Your task to perform on an android device: View the shopping cart on newegg.com. Search for "macbook air" on newegg.com, select the first entry, add it to the cart, then select checkout. Image 0: 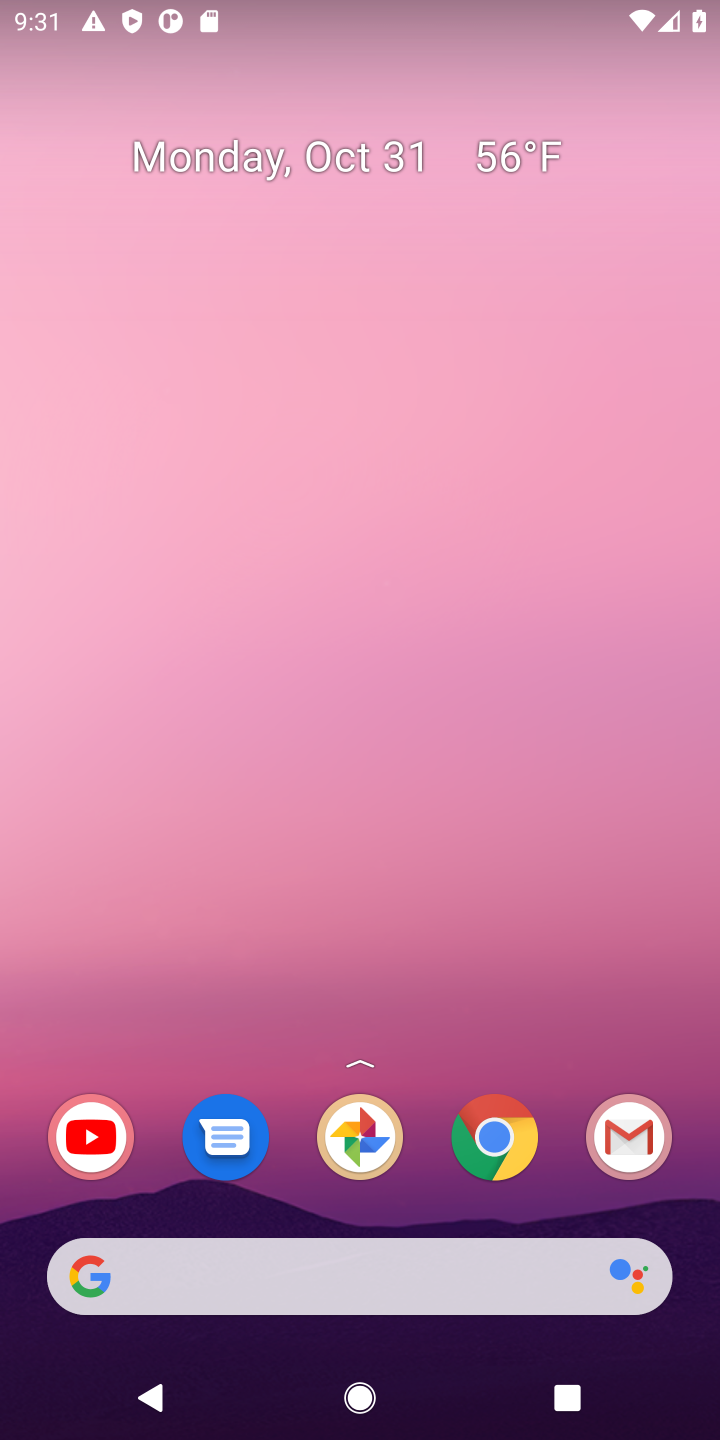
Step 0: click (495, 1143)
Your task to perform on an android device: View the shopping cart on newegg.com. Search for "macbook air" on newegg.com, select the first entry, add it to the cart, then select checkout. Image 1: 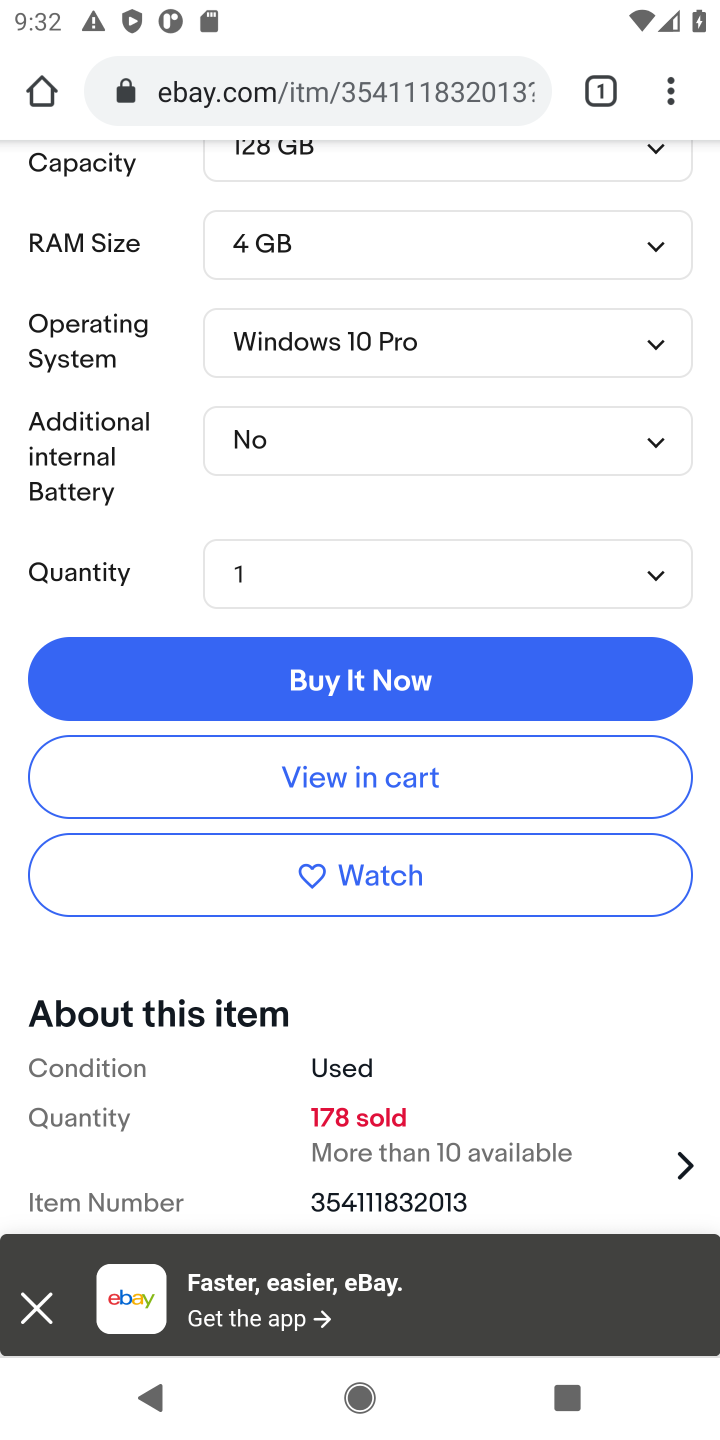
Step 1: click (287, 102)
Your task to perform on an android device: View the shopping cart on newegg.com. Search for "macbook air" on newegg.com, select the first entry, add it to the cart, then select checkout. Image 2: 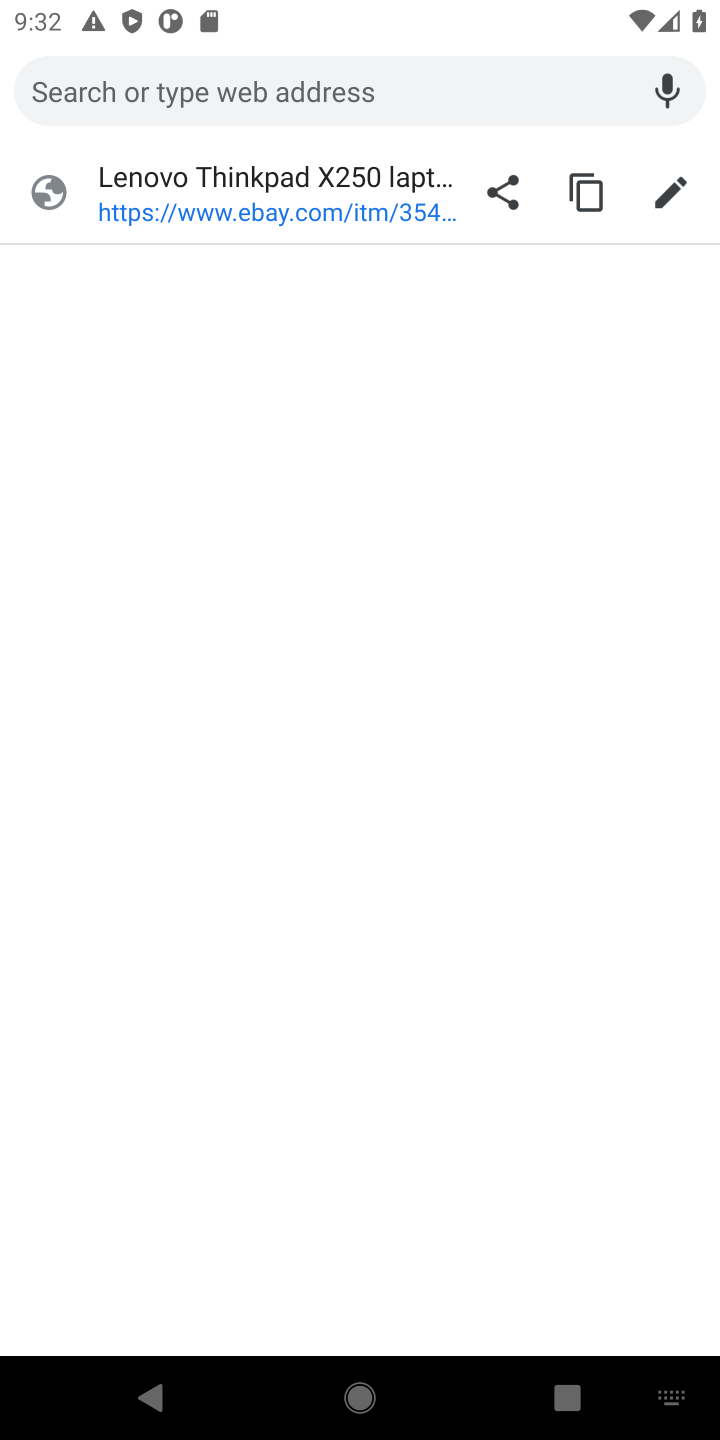
Step 2: type "newegg.com"
Your task to perform on an android device: View the shopping cart on newegg.com. Search for "macbook air" on newegg.com, select the first entry, add it to the cart, then select checkout. Image 3: 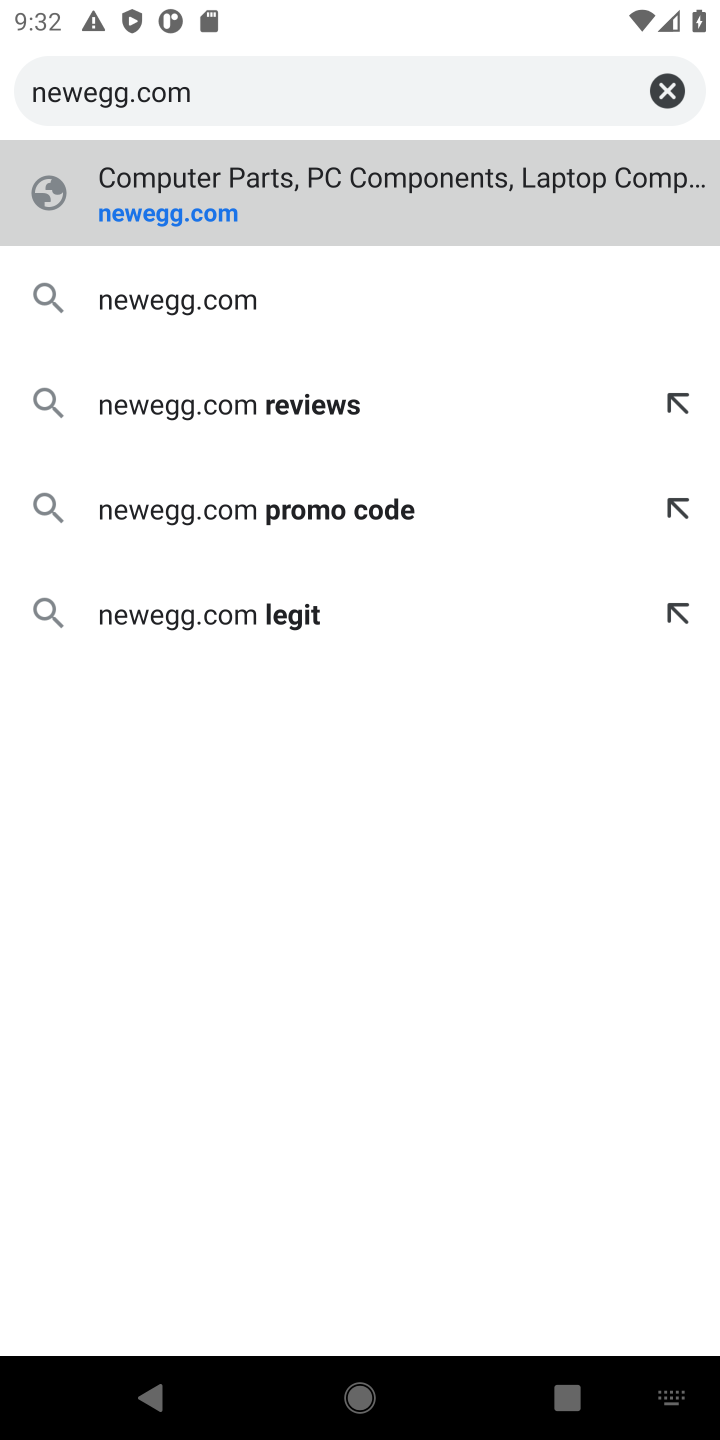
Step 3: click (176, 299)
Your task to perform on an android device: View the shopping cart on newegg.com. Search for "macbook air" on newegg.com, select the first entry, add it to the cart, then select checkout. Image 4: 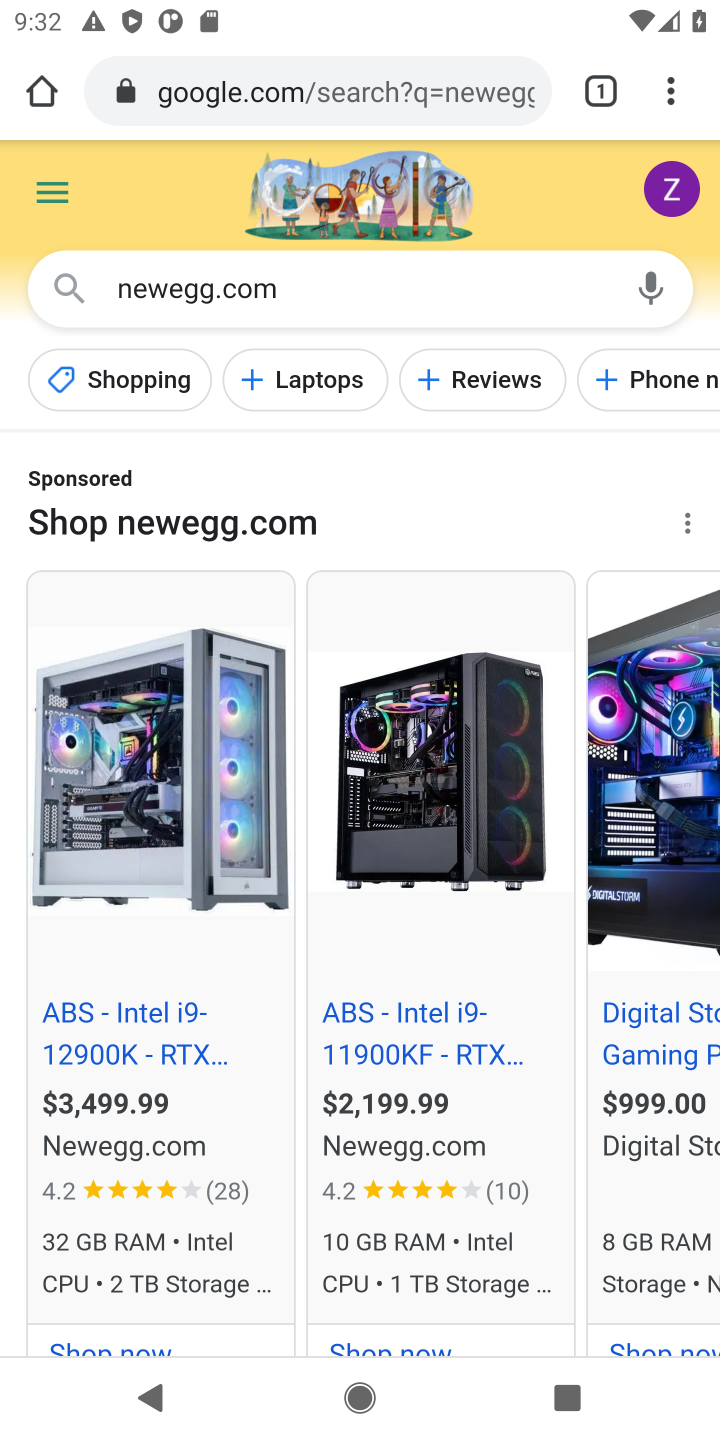
Step 4: drag from (328, 1034) to (465, 333)
Your task to perform on an android device: View the shopping cart on newegg.com. Search for "macbook air" on newegg.com, select the first entry, add it to the cart, then select checkout. Image 5: 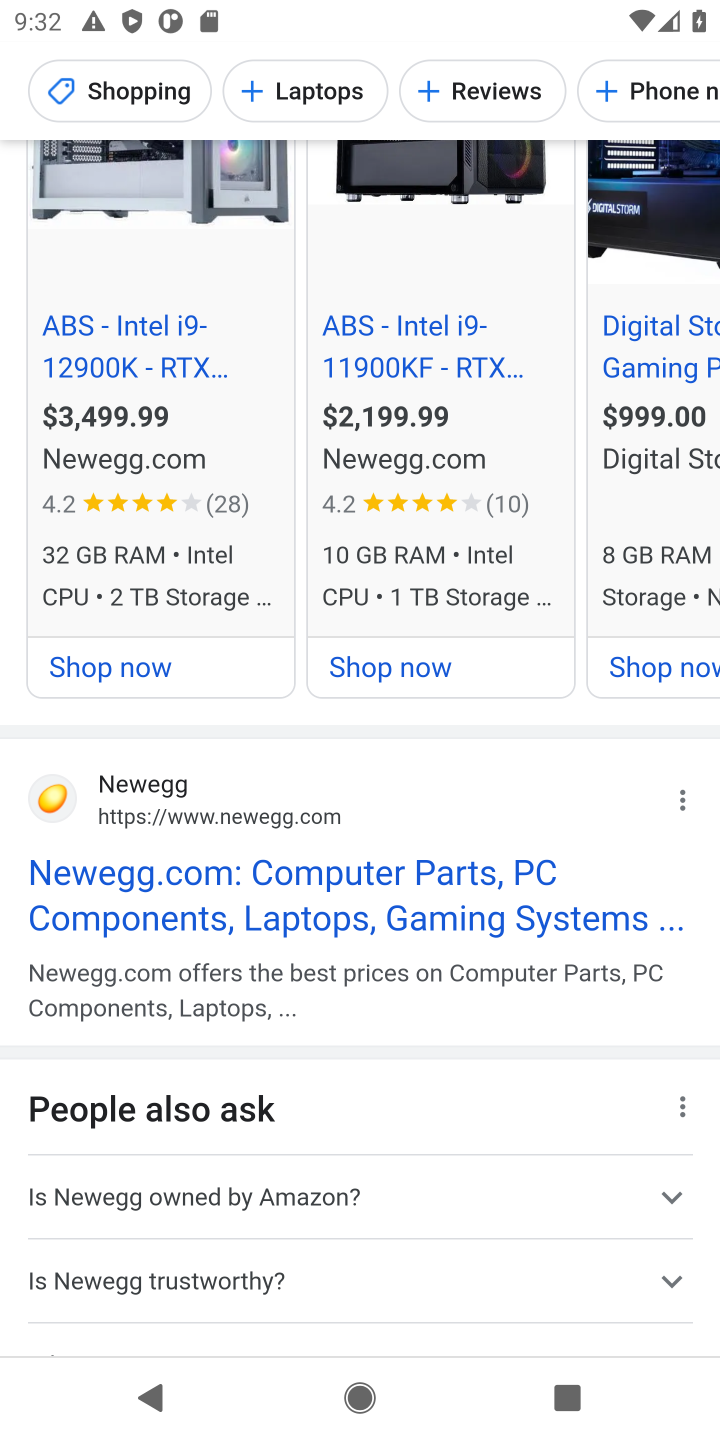
Step 5: click (206, 821)
Your task to perform on an android device: View the shopping cart on newegg.com. Search for "macbook air" on newegg.com, select the first entry, add it to the cart, then select checkout. Image 6: 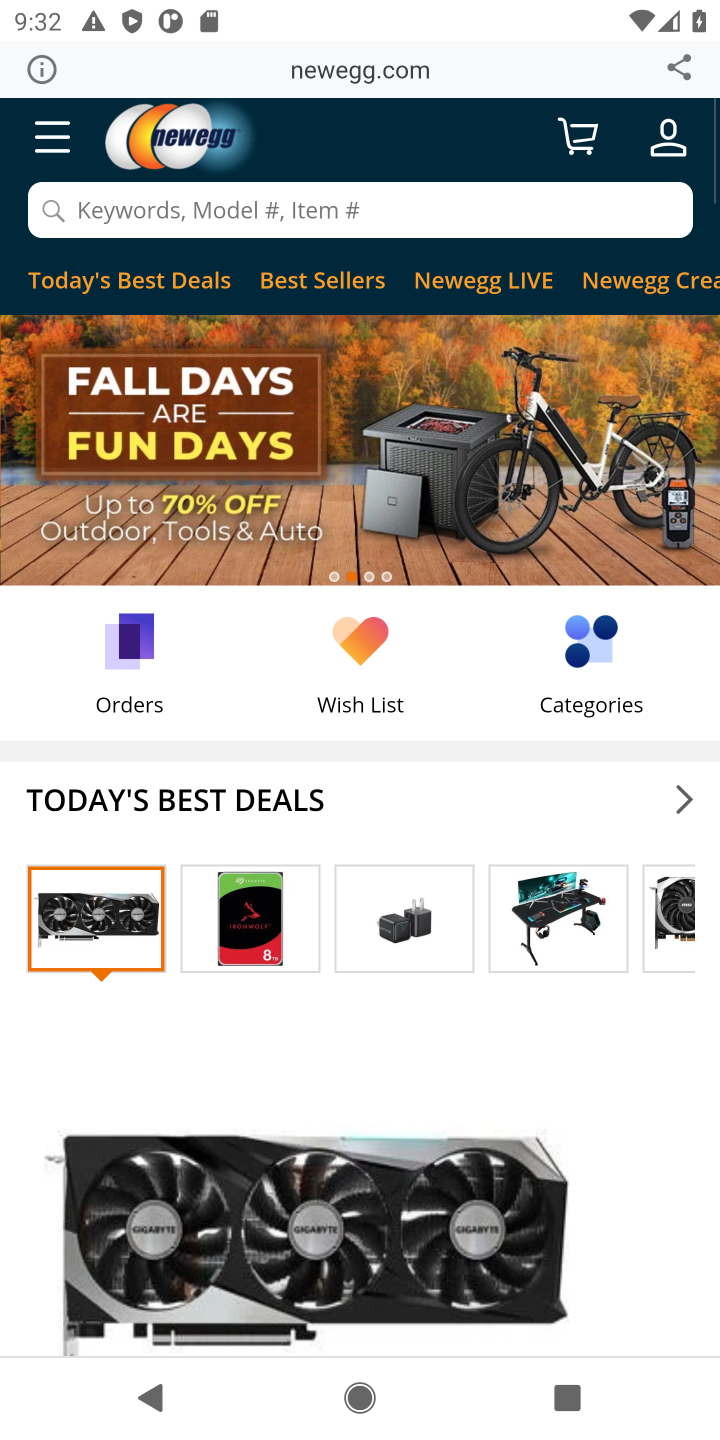
Step 6: click (583, 137)
Your task to perform on an android device: View the shopping cart on newegg.com. Search for "macbook air" on newegg.com, select the first entry, add it to the cart, then select checkout. Image 7: 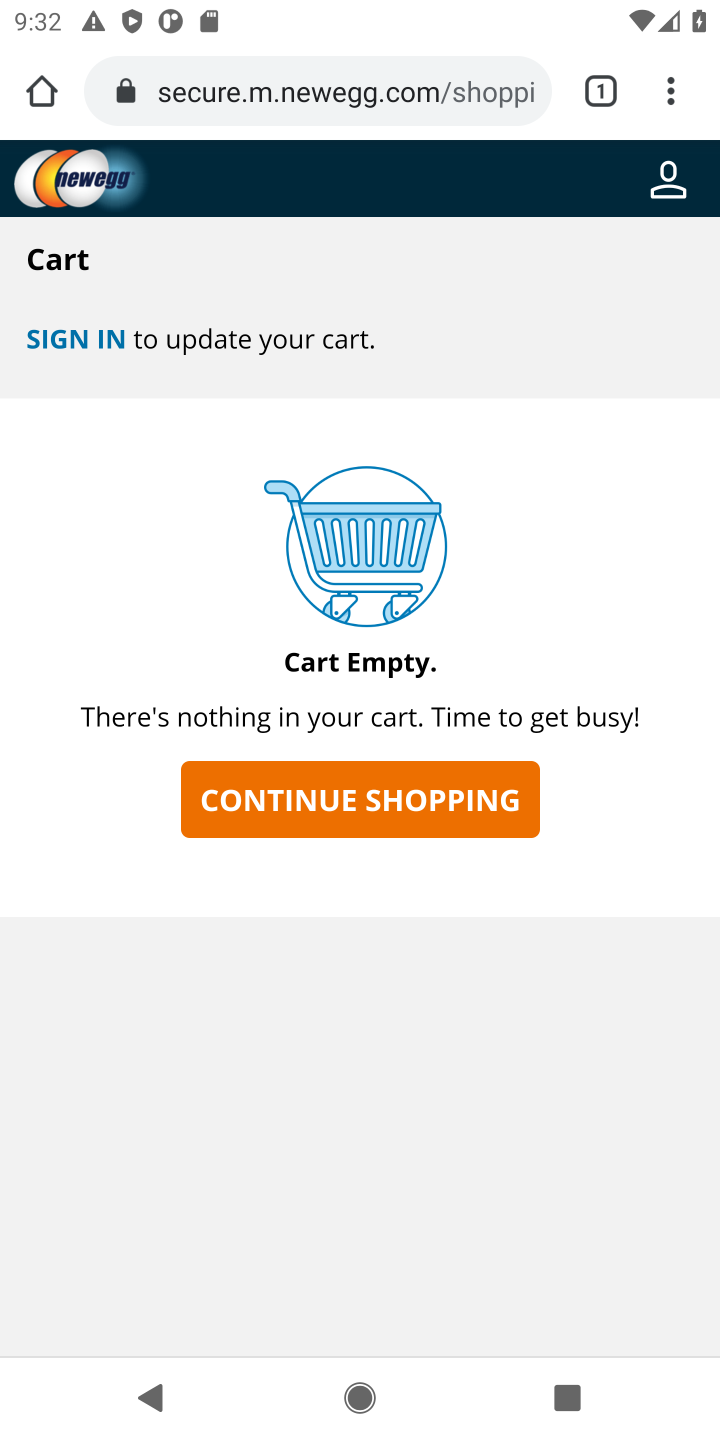
Step 7: click (351, 804)
Your task to perform on an android device: View the shopping cart on newegg.com. Search for "macbook air" on newegg.com, select the first entry, add it to the cart, then select checkout. Image 8: 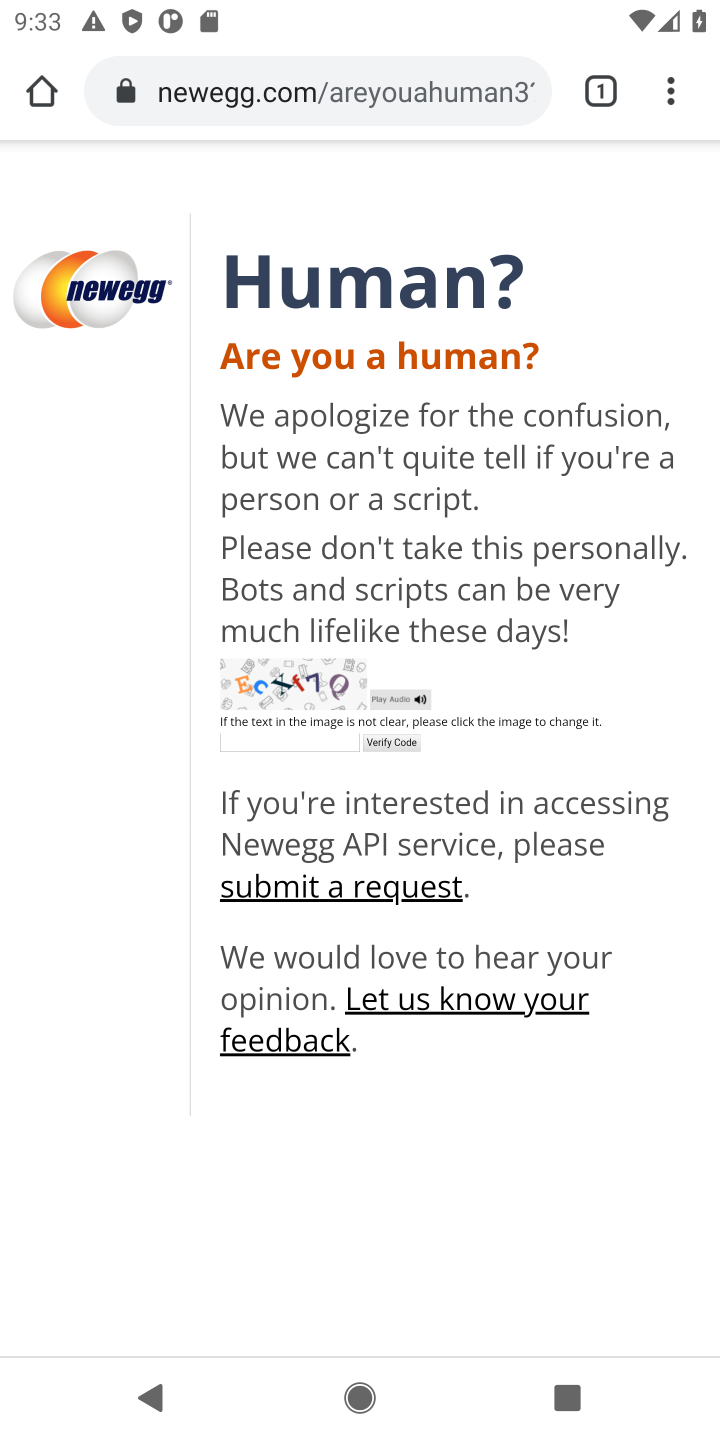
Step 8: press back button
Your task to perform on an android device: View the shopping cart on newegg.com. Search for "macbook air" on newegg.com, select the first entry, add it to the cart, then select checkout. Image 9: 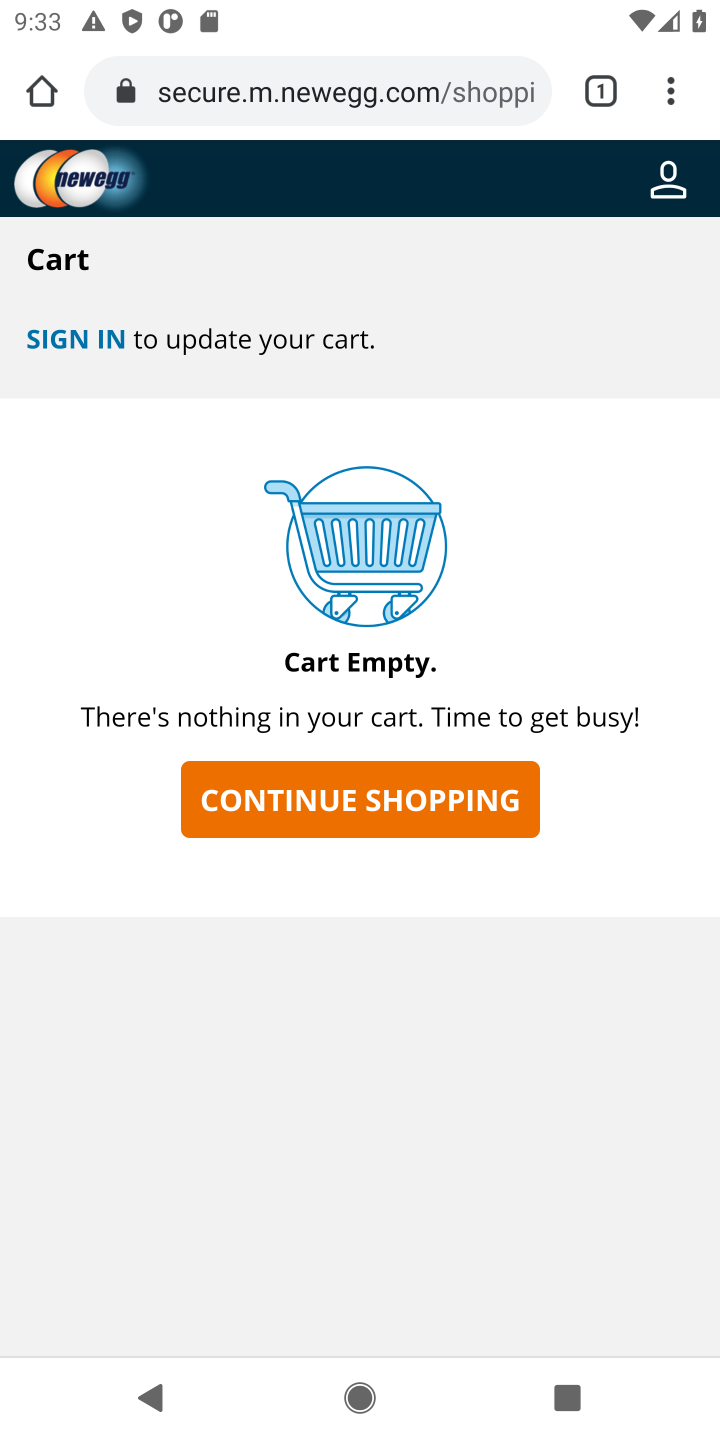
Step 9: press back button
Your task to perform on an android device: View the shopping cart on newegg.com. Search for "macbook air" on newegg.com, select the first entry, add it to the cart, then select checkout. Image 10: 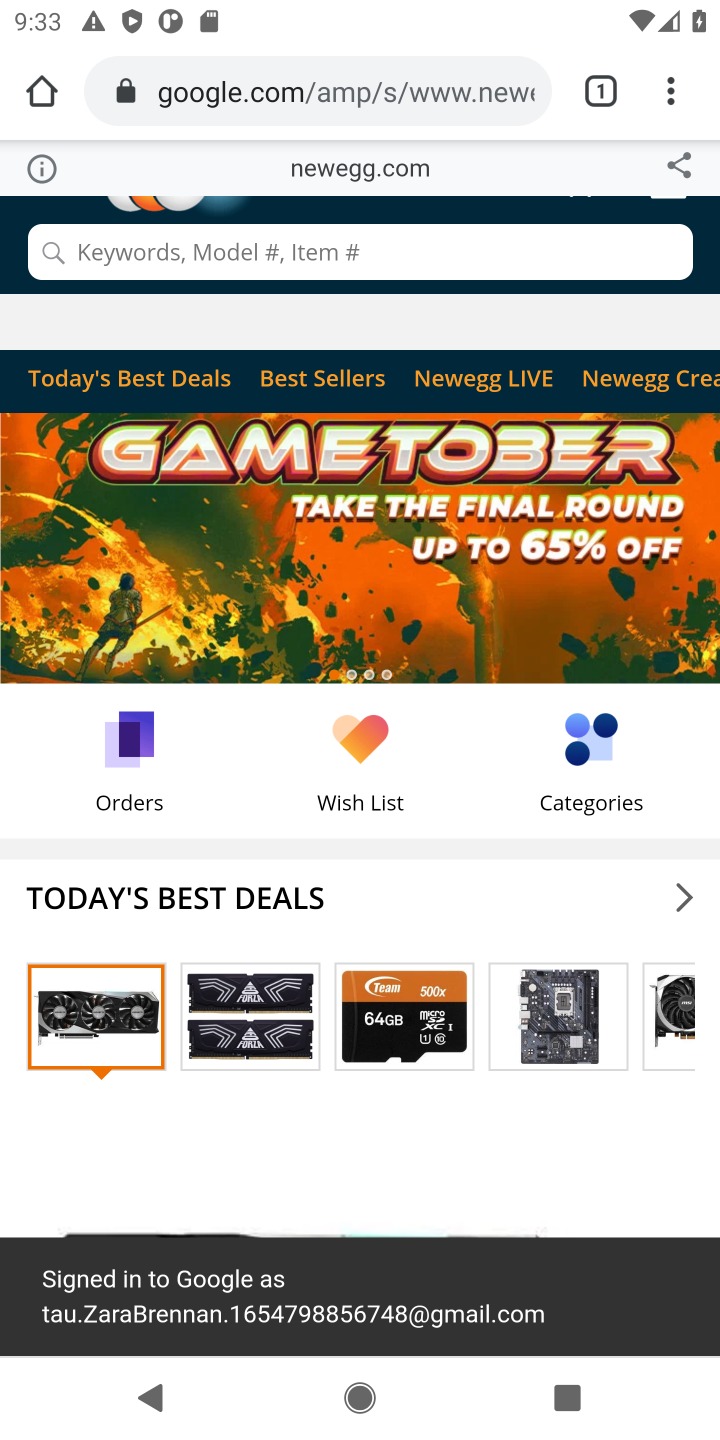
Step 10: click (457, 253)
Your task to perform on an android device: View the shopping cart on newegg.com. Search for "macbook air" on newegg.com, select the first entry, add it to the cart, then select checkout. Image 11: 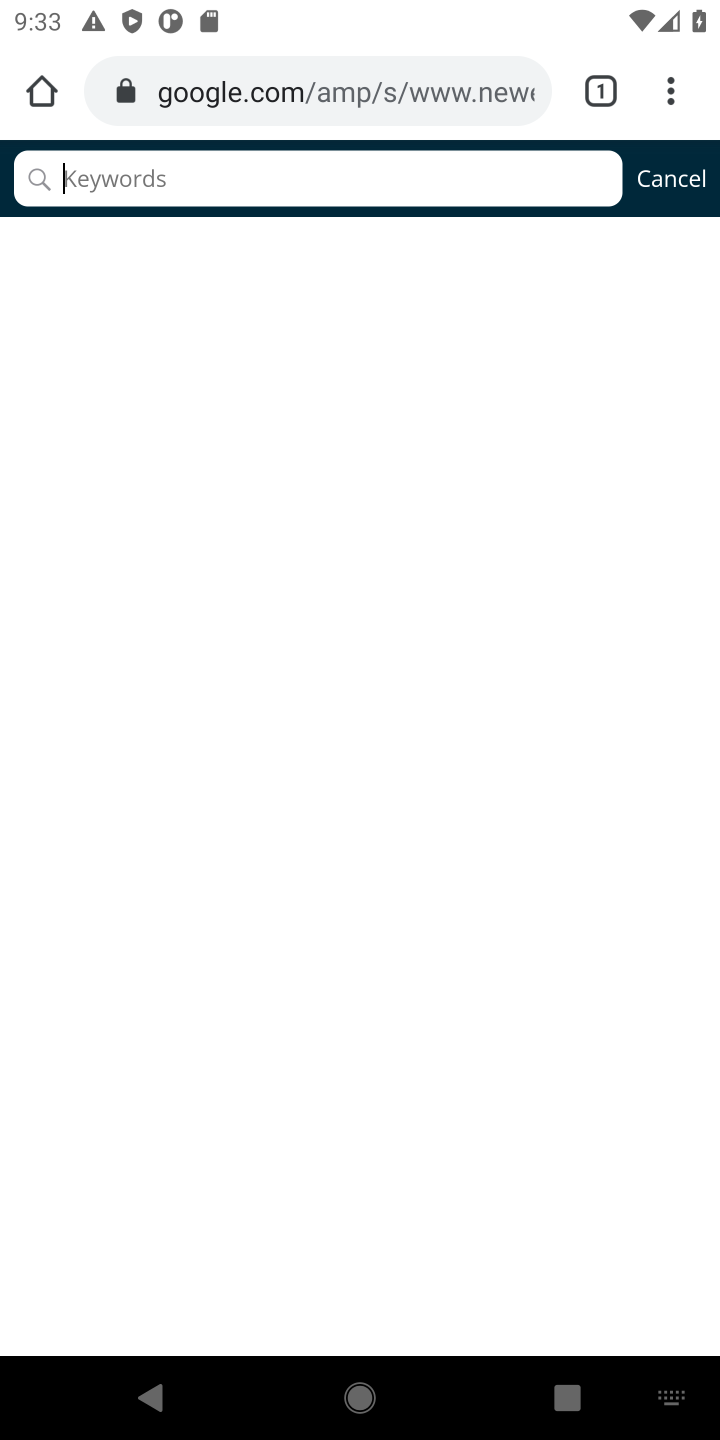
Step 11: type "macbook air"
Your task to perform on an android device: View the shopping cart on newegg.com. Search for "macbook air" on newegg.com, select the first entry, add it to the cart, then select checkout. Image 12: 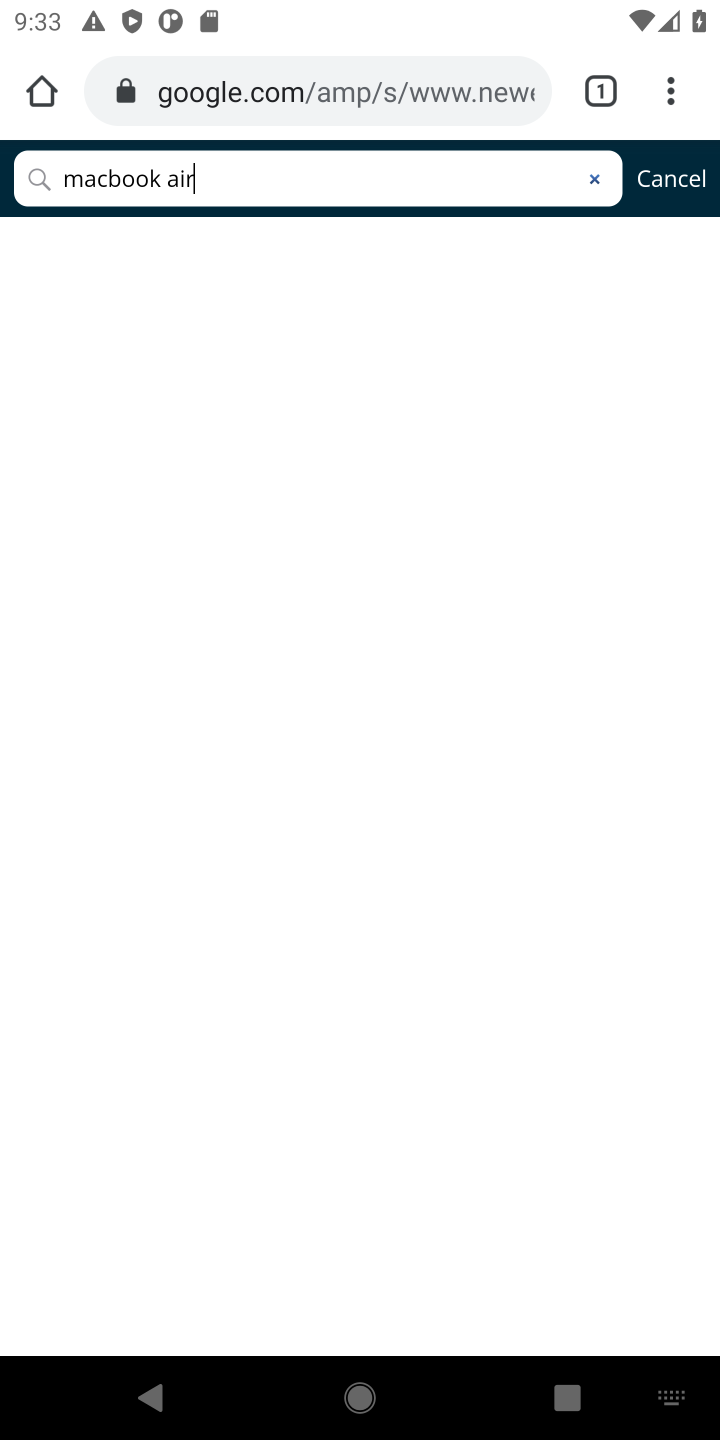
Step 12: click (39, 177)
Your task to perform on an android device: View the shopping cart on newegg.com. Search for "macbook air" on newegg.com, select the first entry, add it to the cart, then select checkout. Image 13: 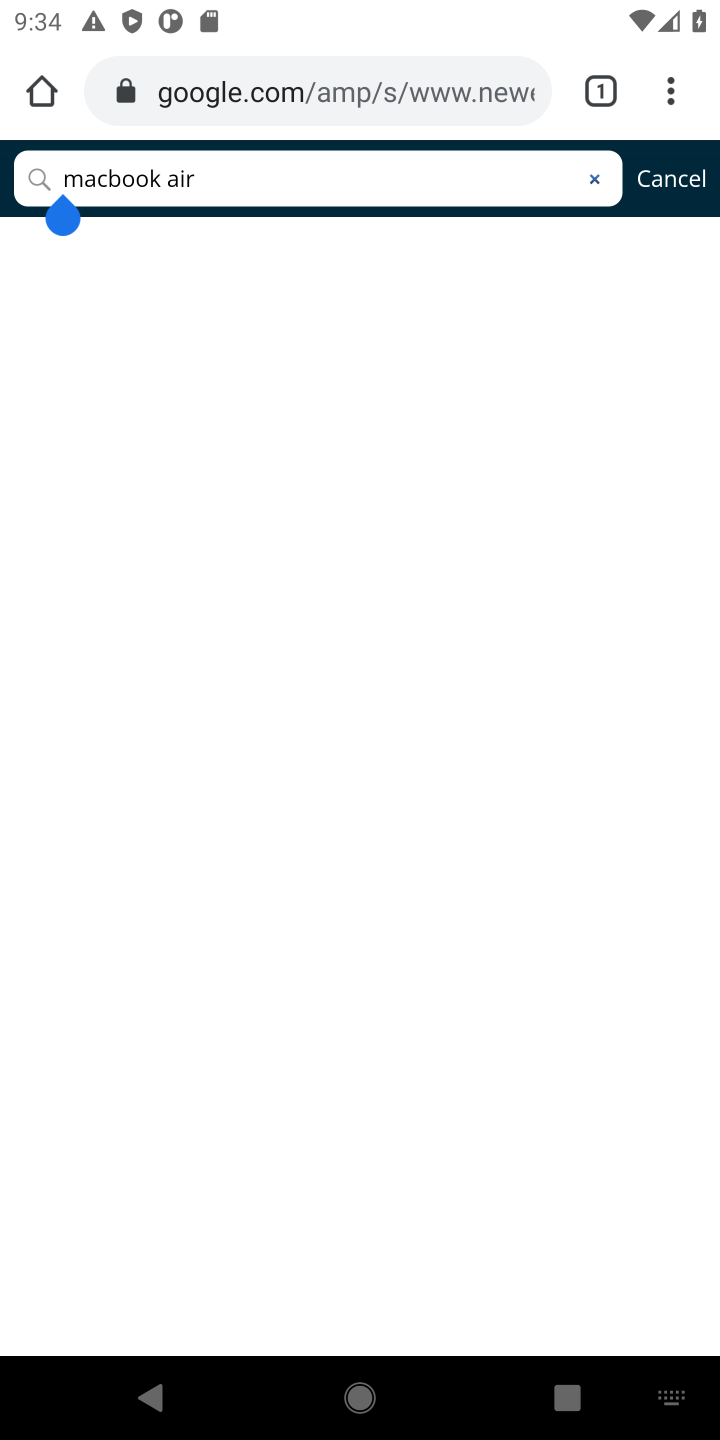
Step 13: task complete